Your task to perform on an android device: Open Google Chrome Image 0: 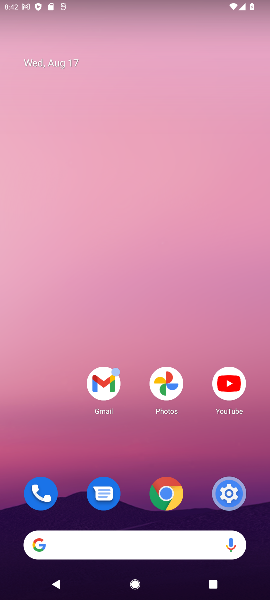
Step 0: click (0, 223)
Your task to perform on an android device: Open Google Chrome Image 1: 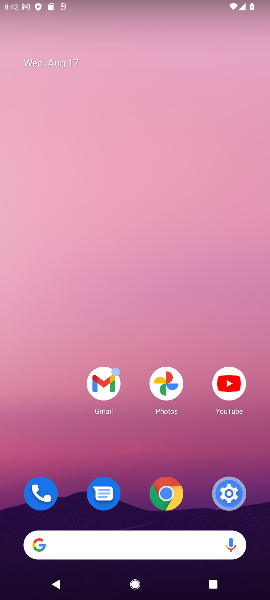
Step 1: drag from (129, 333) to (197, 16)
Your task to perform on an android device: Open Google Chrome Image 2: 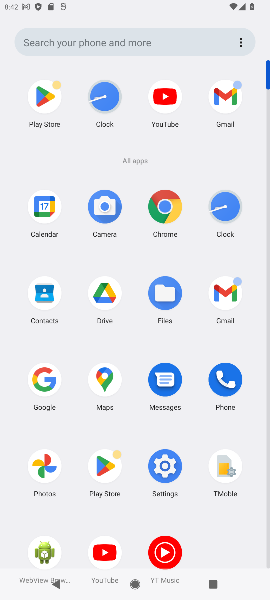
Step 2: click (167, 212)
Your task to perform on an android device: Open Google Chrome Image 3: 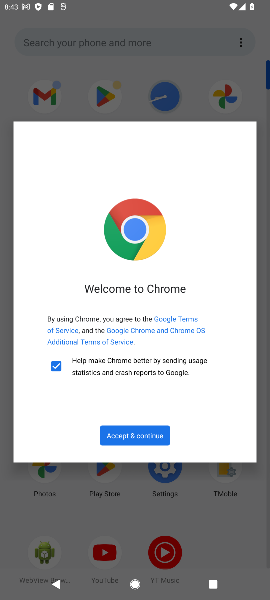
Step 3: click (148, 431)
Your task to perform on an android device: Open Google Chrome Image 4: 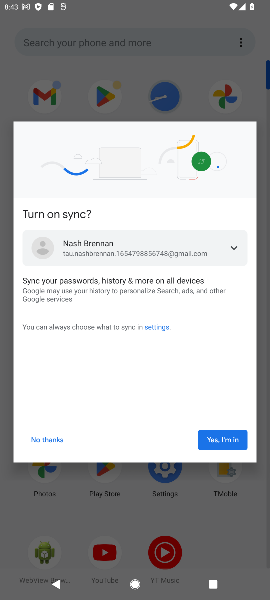
Step 4: click (54, 439)
Your task to perform on an android device: Open Google Chrome Image 5: 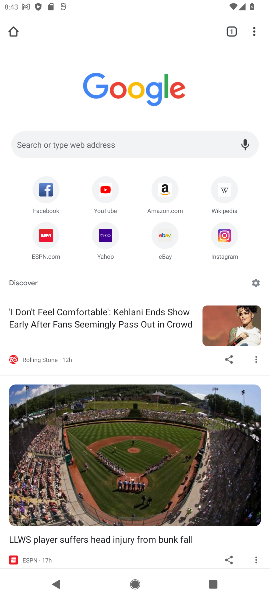
Step 5: task complete